Your task to perform on an android device: Open settings Image 0: 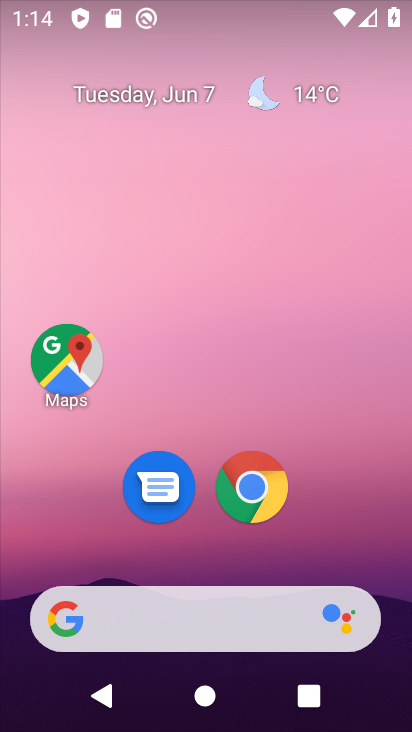
Step 0: drag from (203, 570) to (120, 36)
Your task to perform on an android device: Open settings Image 1: 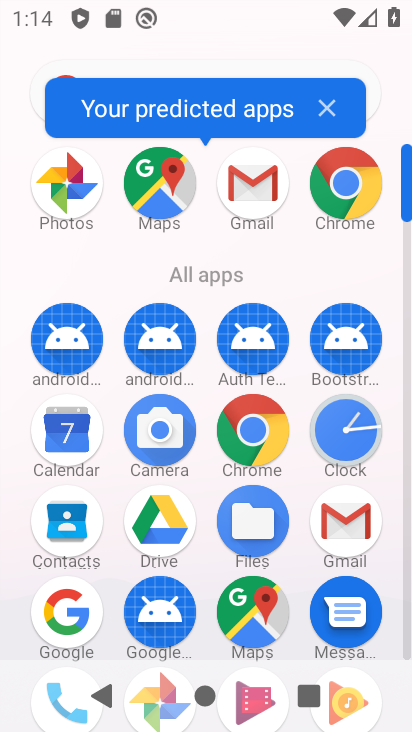
Step 1: drag from (207, 503) to (139, 110)
Your task to perform on an android device: Open settings Image 2: 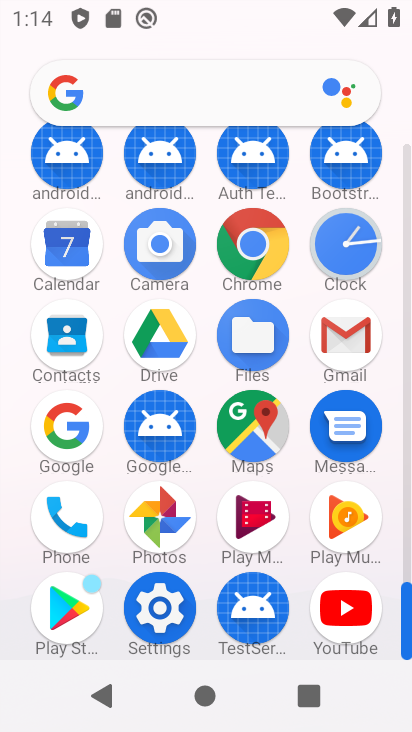
Step 2: click (165, 605)
Your task to perform on an android device: Open settings Image 3: 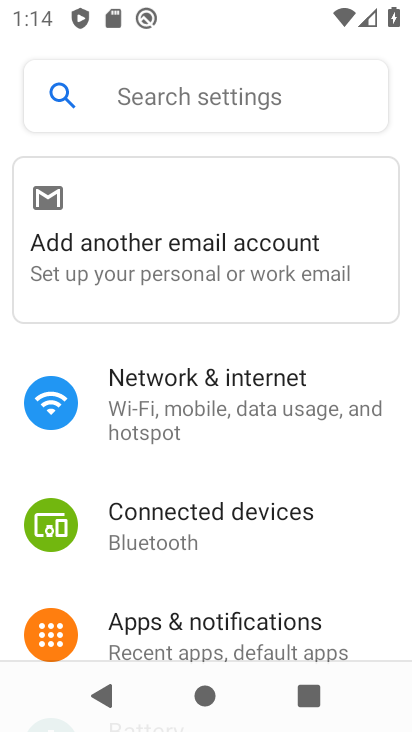
Step 3: task complete